Your task to perform on an android device: Search for "apple airpods pro" on amazon.com, select the first entry, and add it to the cart. Image 0: 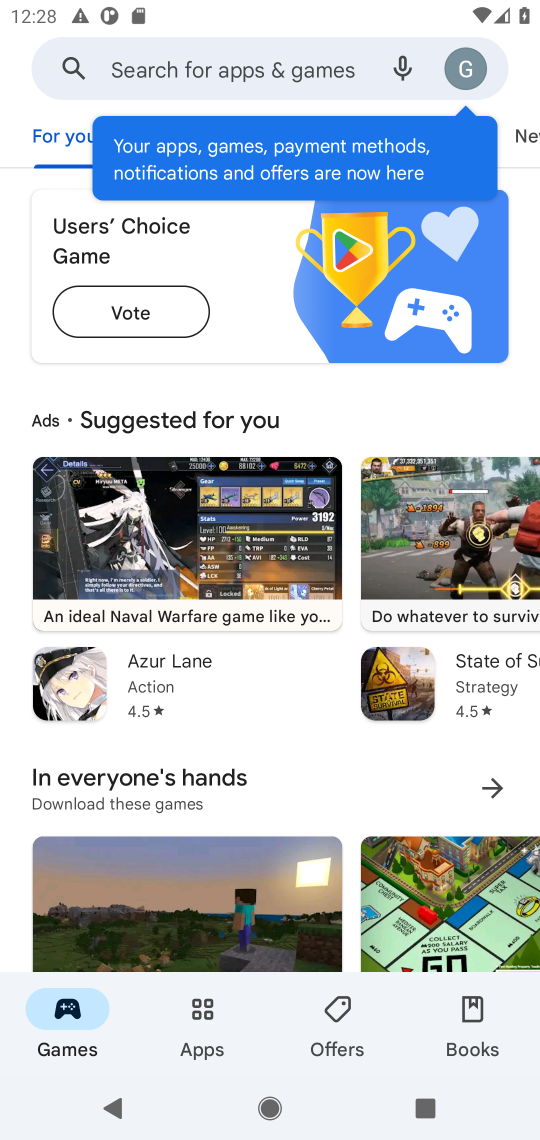
Step 0: click (384, 907)
Your task to perform on an android device: Search for "apple airpods pro" on amazon.com, select the first entry, and add it to the cart. Image 1: 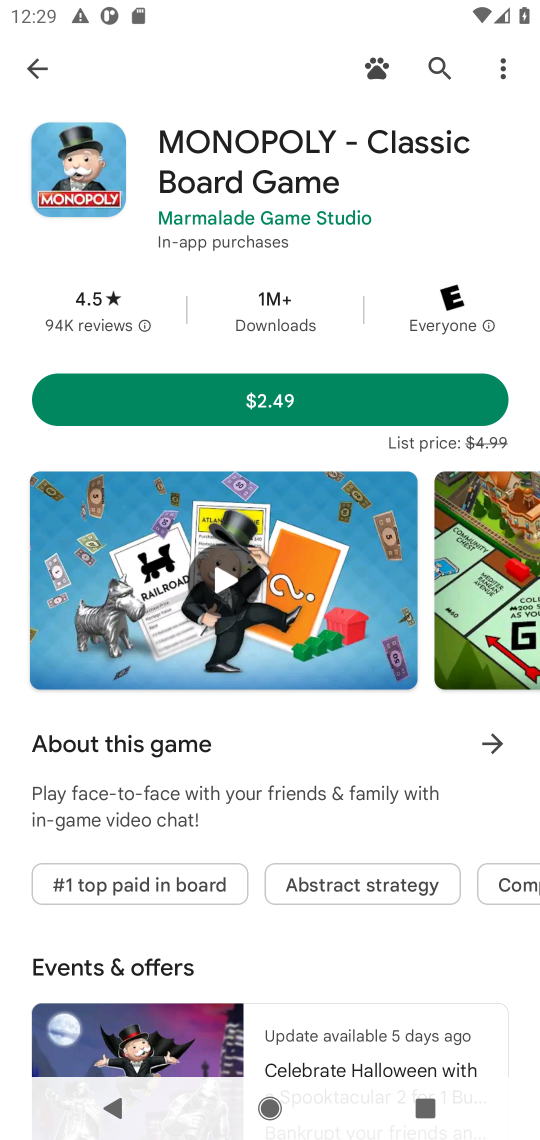
Step 1: press home button
Your task to perform on an android device: Search for "apple airpods pro" on amazon.com, select the first entry, and add it to the cart. Image 2: 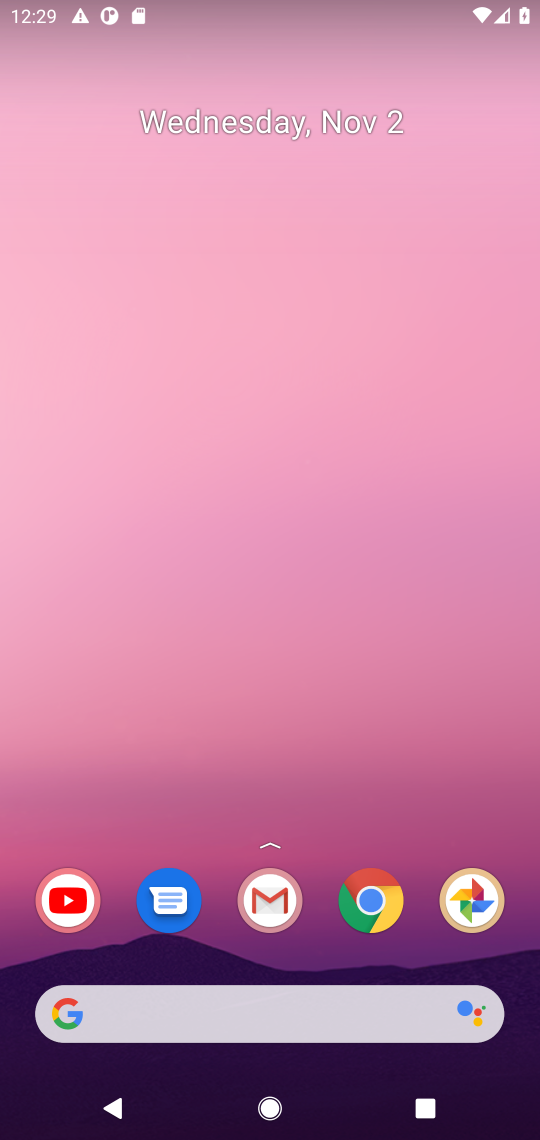
Step 2: click (352, 897)
Your task to perform on an android device: Search for "apple airpods pro" on amazon.com, select the first entry, and add it to the cart. Image 3: 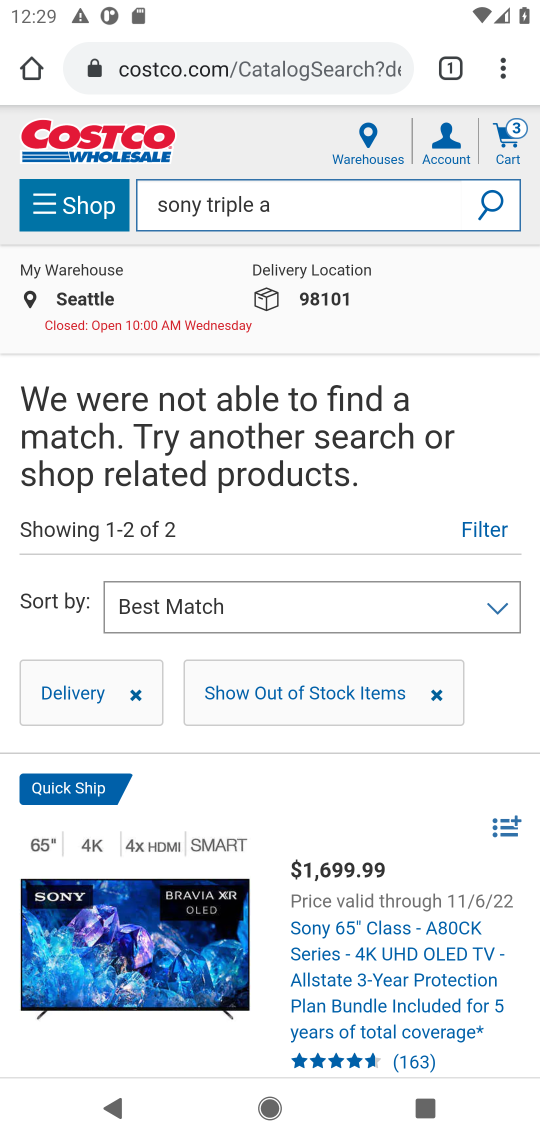
Step 3: click (227, 73)
Your task to perform on an android device: Search for "apple airpods pro" on amazon.com, select the first entry, and add it to the cart. Image 4: 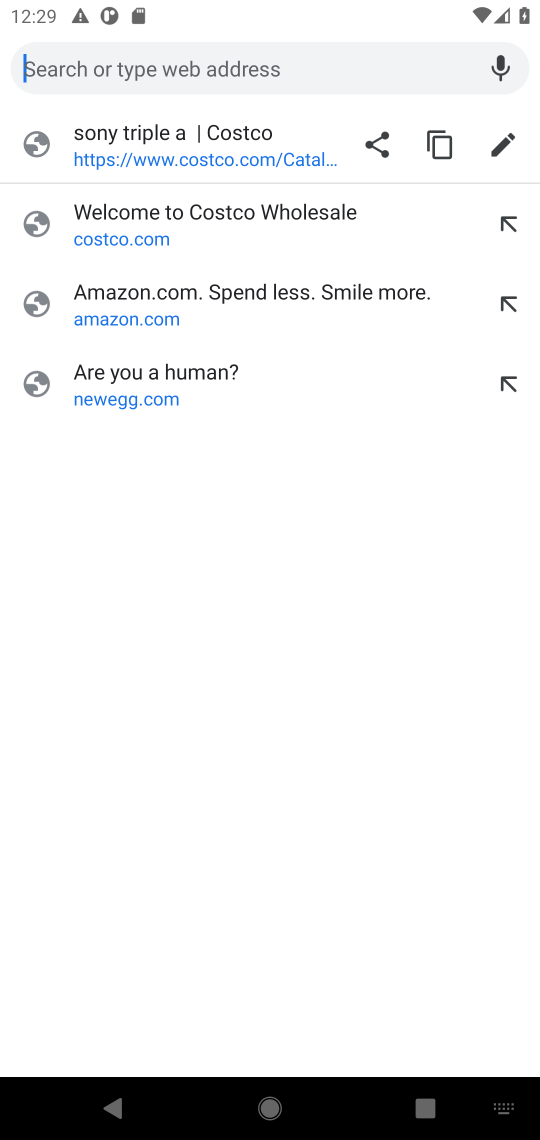
Step 4: click (337, 306)
Your task to perform on an android device: Search for "apple airpods pro" on amazon.com, select the first entry, and add it to the cart. Image 5: 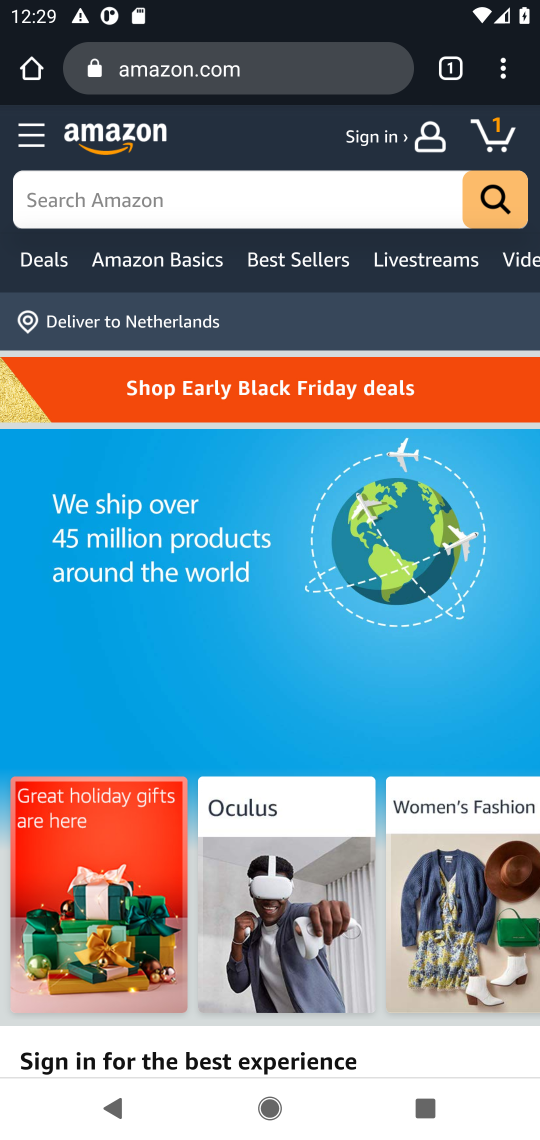
Step 5: click (214, 181)
Your task to perform on an android device: Search for "apple airpods pro" on amazon.com, select the first entry, and add it to the cart. Image 6: 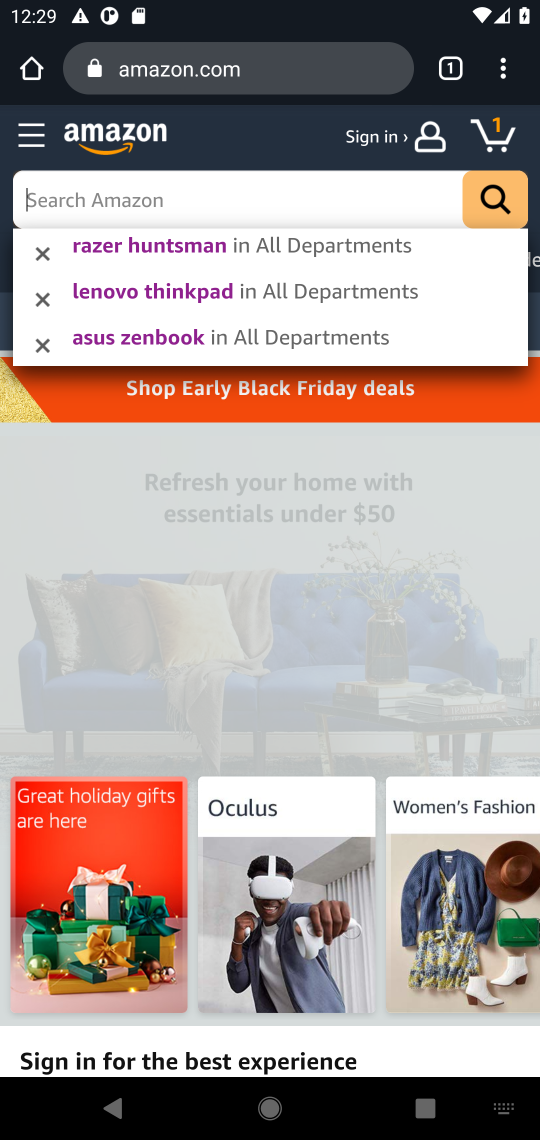
Step 6: type "apple airpods pro"
Your task to perform on an android device: Search for "apple airpods pro" on amazon.com, select the first entry, and add it to the cart. Image 7: 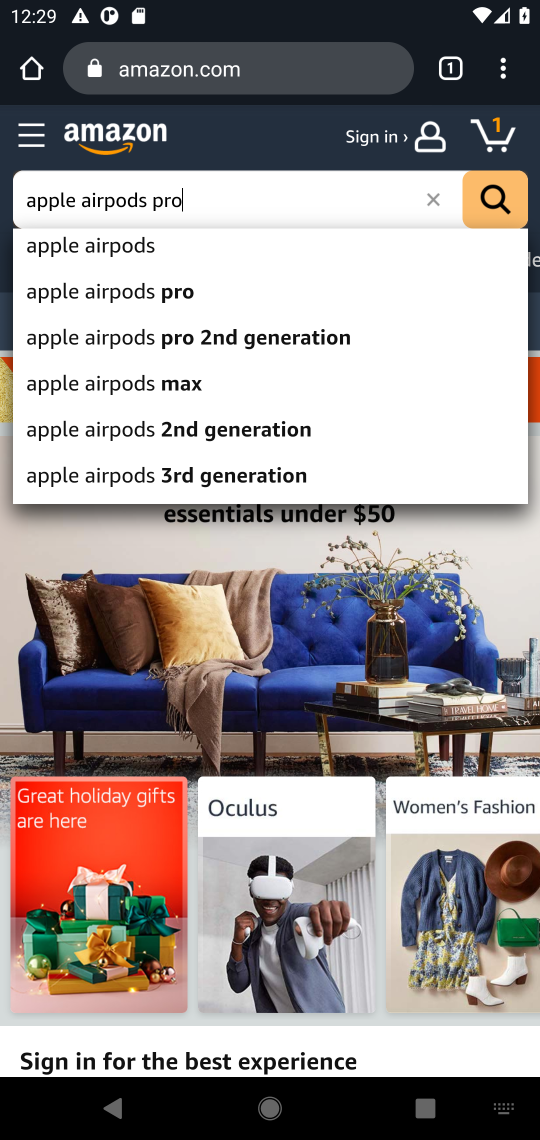
Step 7: type ""
Your task to perform on an android device: Search for "apple airpods pro" on amazon.com, select the first entry, and add it to the cart. Image 8: 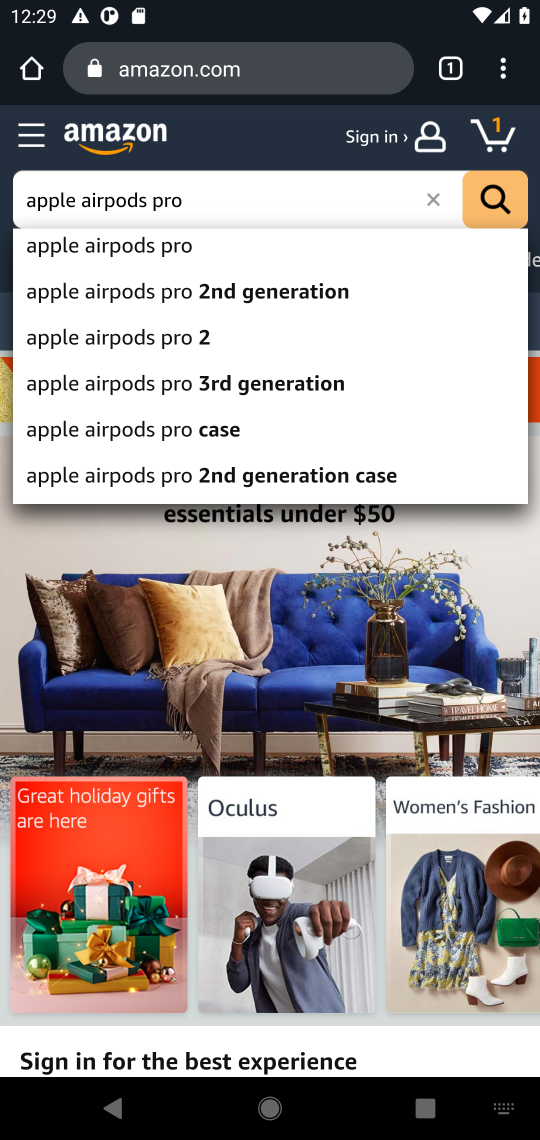
Step 8: click (468, 211)
Your task to perform on an android device: Search for "apple airpods pro" on amazon.com, select the first entry, and add it to the cart. Image 9: 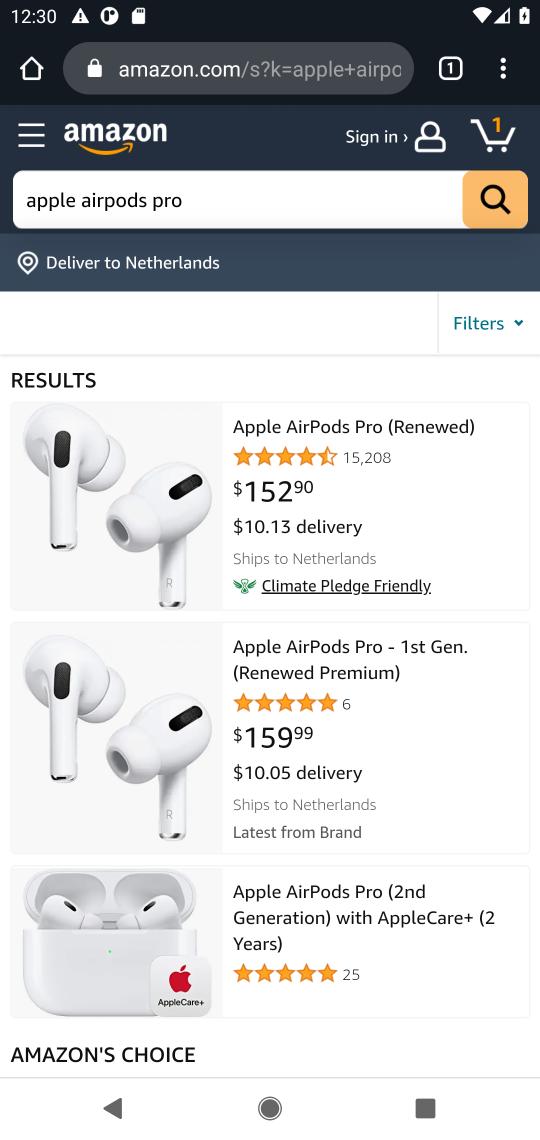
Step 9: click (249, 475)
Your task to perform on an android device: Search for "apple airpods pro" on amazon.com, select the first entry, and add it to the cart. Image 10: 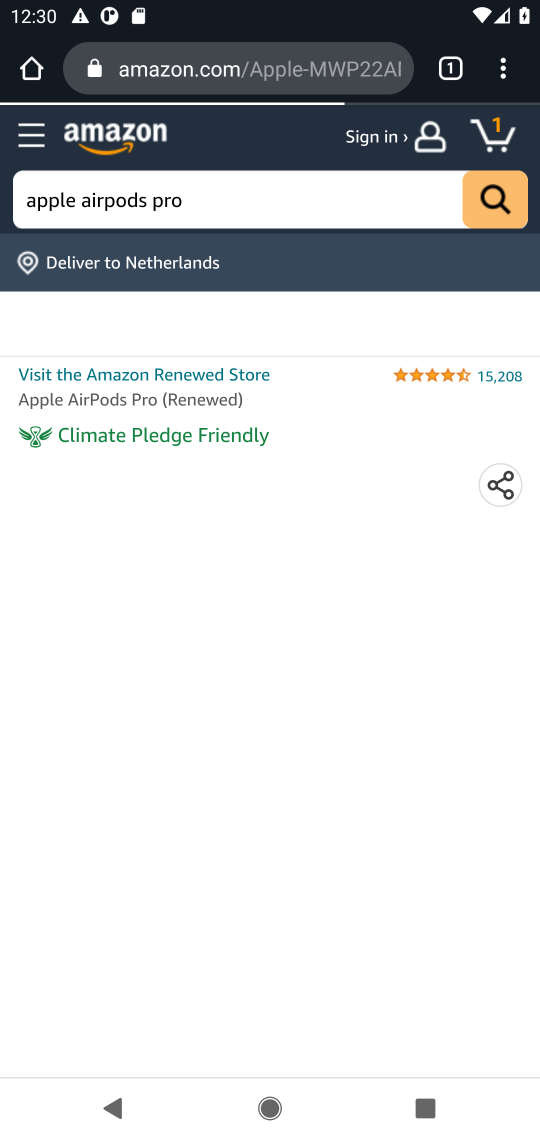
Step 10: click (256, 437)
Your task to perform on an android device: Search for "apple airpods pro" on amazon.com, select the first entry, and add it to the cart. Image 11: 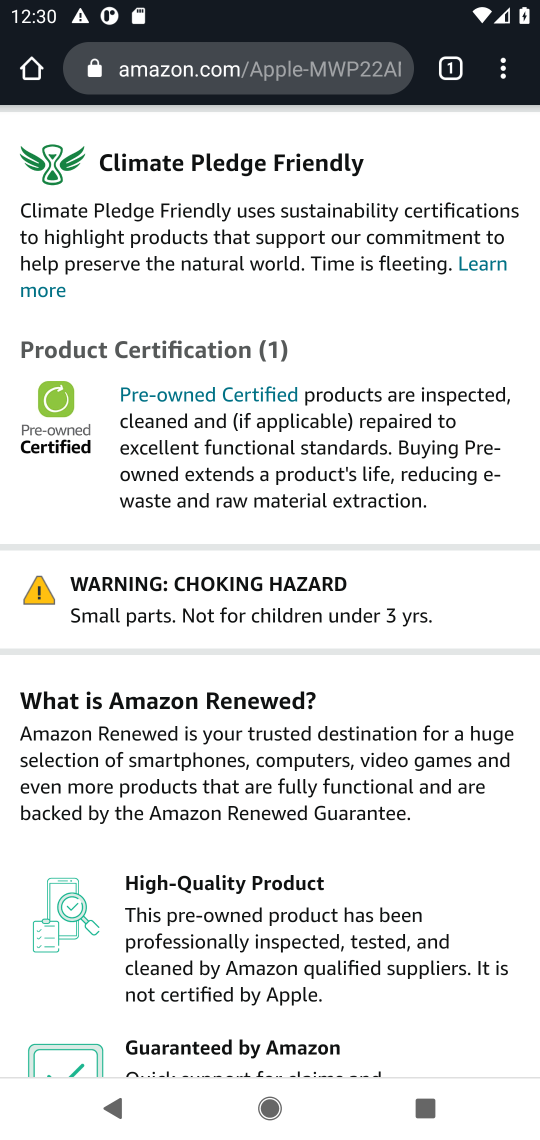
Step 11: press back button
Your task to perform on an android device: Search for "apple airpods pro" on amazon.com, select the first entry, and add it to the cart. Image 12: 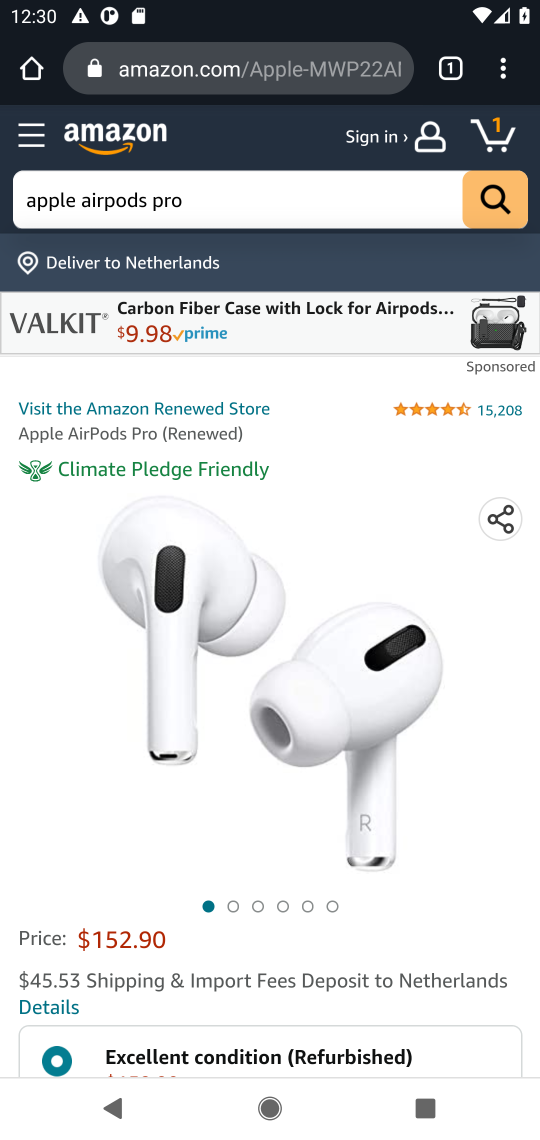
Step 12: drag from (371, 929) to (354, 294)
Your task to perform on an android device: Search for "apple airpods pro" on amazon.com, select the first entry, and add it to the cart. Image 13: 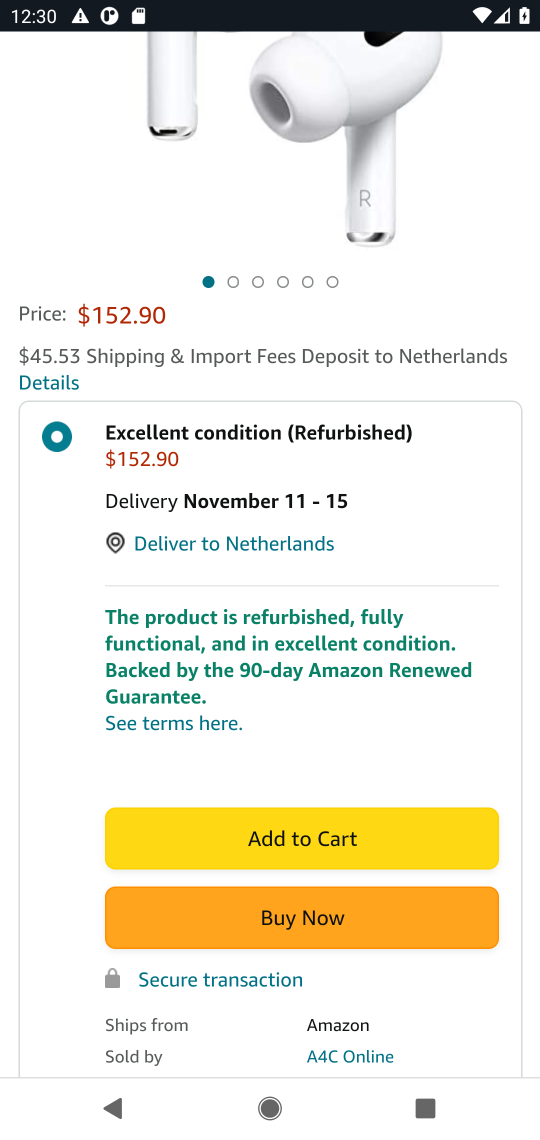
Step 13: click (271, 836)
Your task to perform on an android device: Search for "apple airpods pro" on amazon.com, select the first entry, and add it to the cart. Image 14: 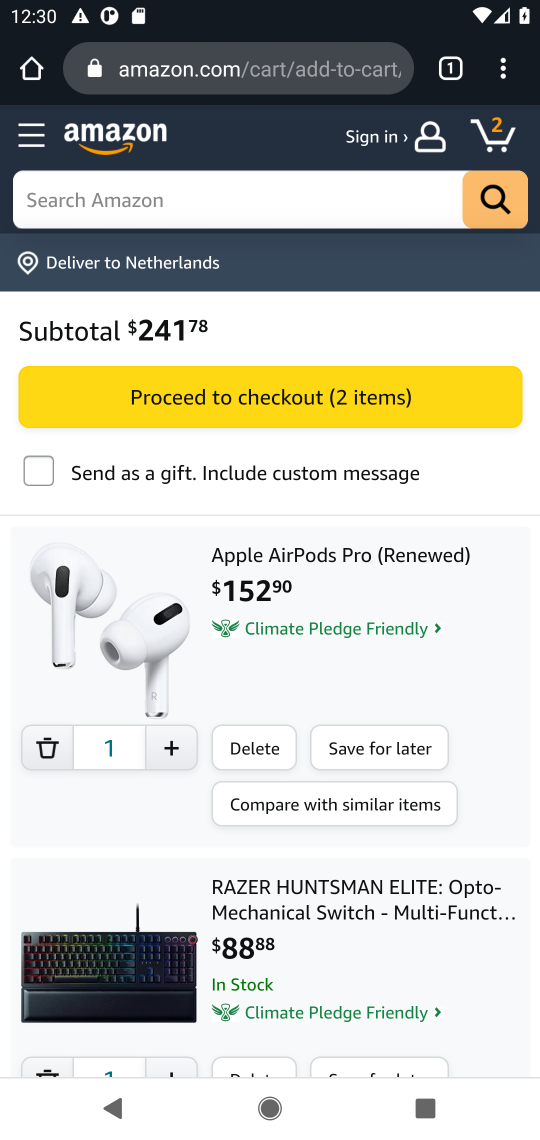
Step 14: task complete